Your task to perform on an android device: Open Google Image 0: 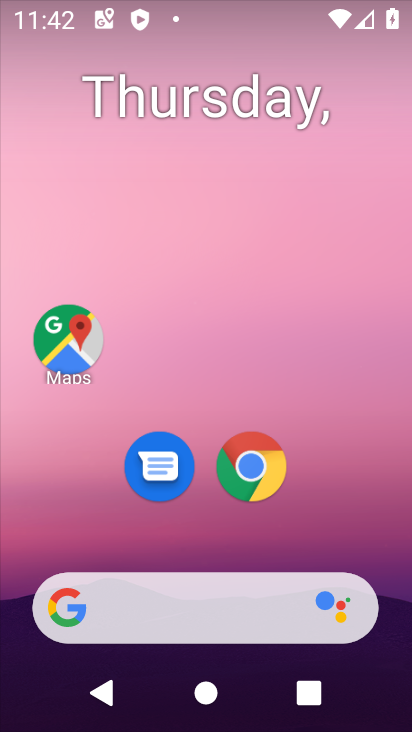
Step 0: drag from (390, 623) to (290, 8)
Your task to perform on an android device: Open Google Image 1: 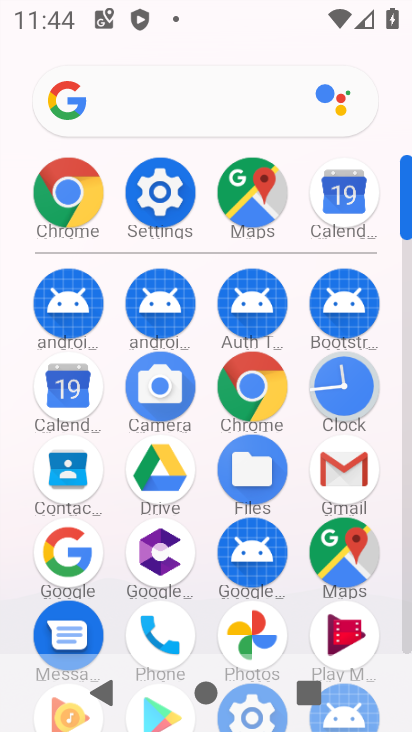
Step 1: click (75, 556)
Your task to perform on an android device: Open Google Image 2: 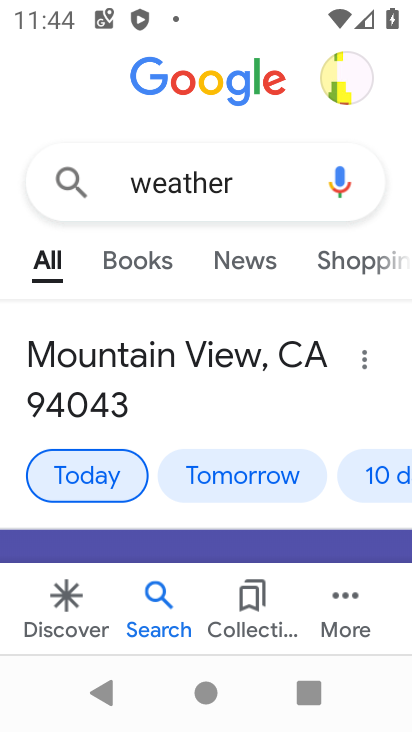
Step 2: task complete